Your task to perform on an android device: snooze an email in the gmail app Image 0: 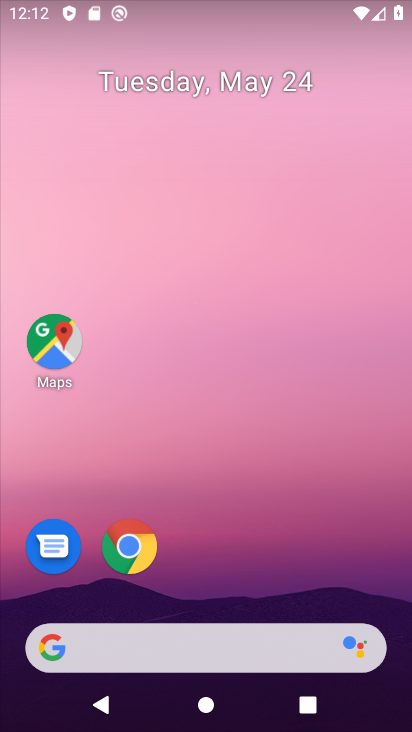
Step 0: drag from (182, 191) to (205, 48)
Your task to perform on an android device: snooze an email in the gmail app Image 1: 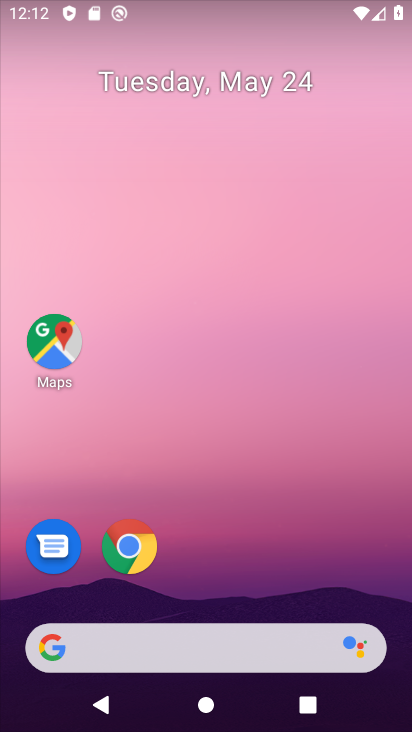
Step 1: drag from (310, 635) to (330, 45)
Your task to perform on an android device: snooze an email in the gmail app Image 2: 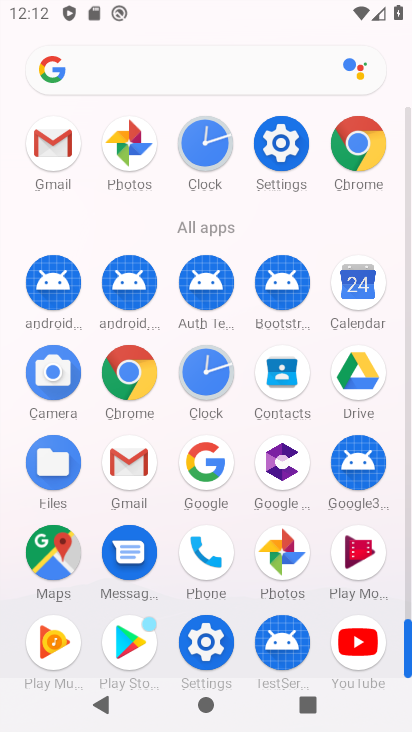
Step 2: click (132, 454)
Your task to perform on an android device: snooze an email in the gmail app Image 3: 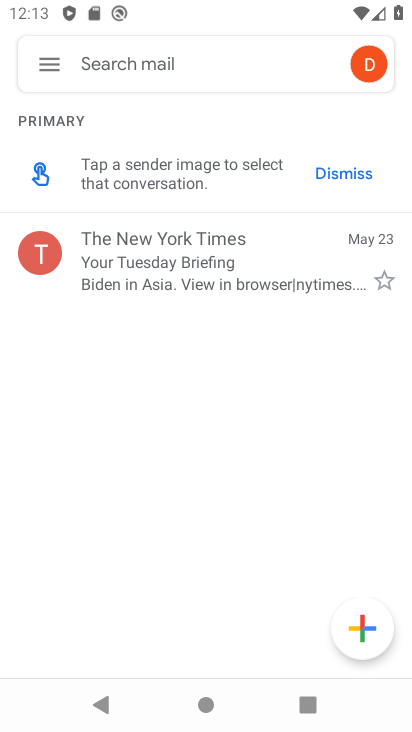
Step 3: click (307, 275)
Your task to perform on an android device: snooze an email in the gmail app Image 4: 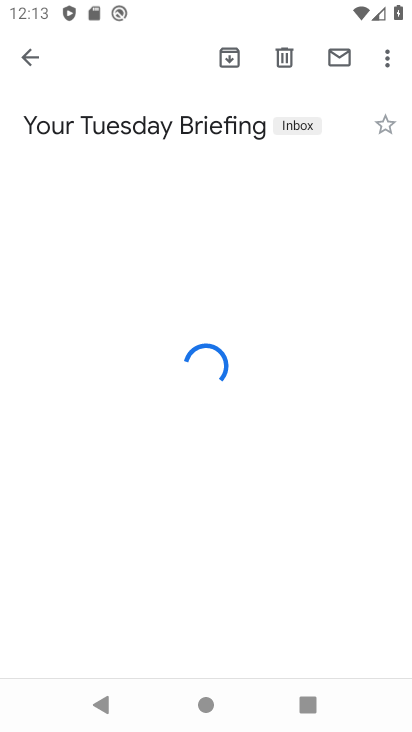
Step 4: click (390, 65)
Your task to perform on an android device: snooze an email in the gmail app Image 5: 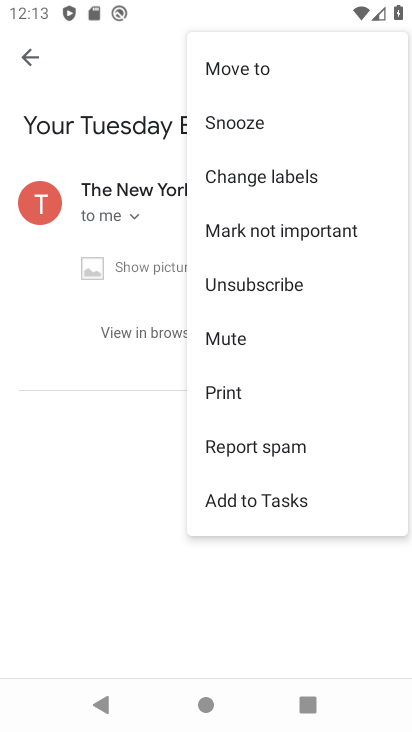
Step 5: click (248, 121)
Your task to perform on an android device: snooze an email in the gmail app Image 6: 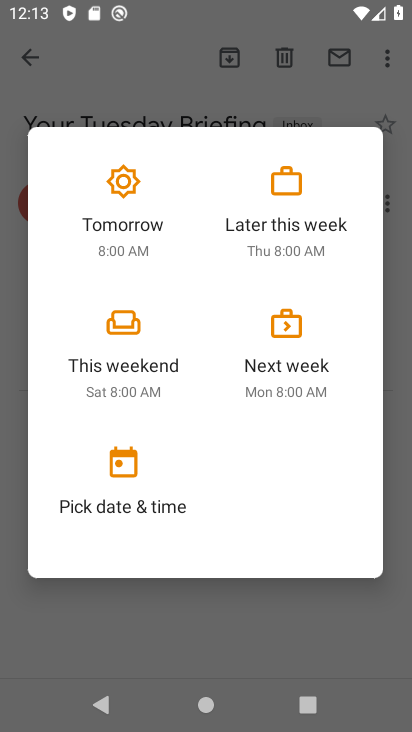
Step 6: click (121, 356)
Your task to perform on an android device: snooze an email in the gmail app Image 7: 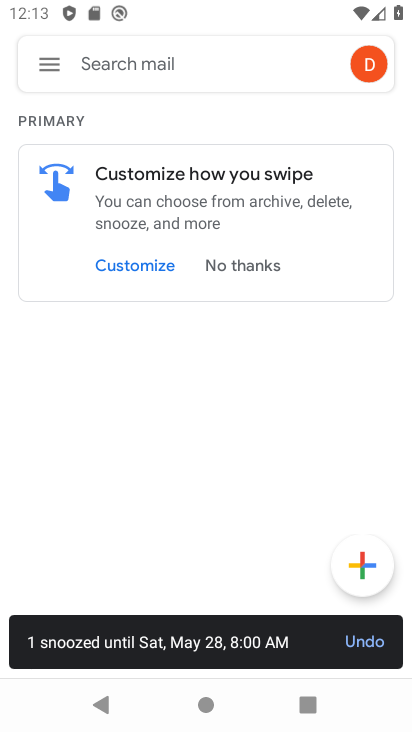
Step 7: task complete